Your task to perform on an android device: Open Google Chrome Image 0: 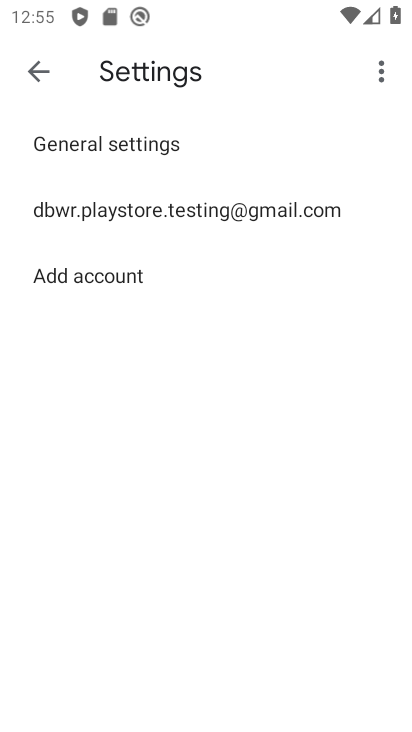
Step 0: press home button
Your task to perform on an android device: Open Google Chrome Image 1: 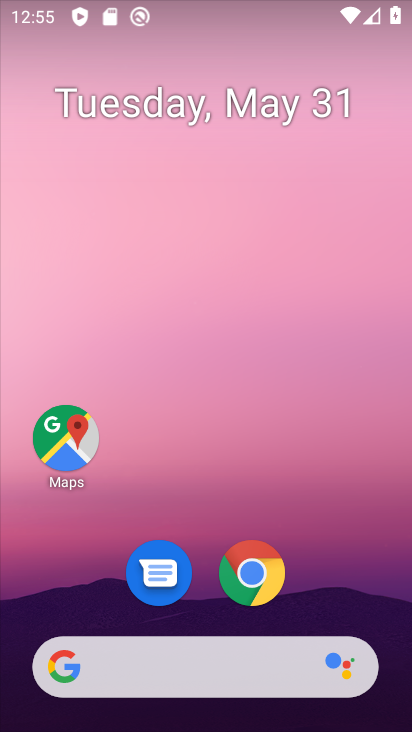
Step 1: drag from (347, 567) to (350, 167)
Your task to perform on an android device: Open Google Chrome Image 2: 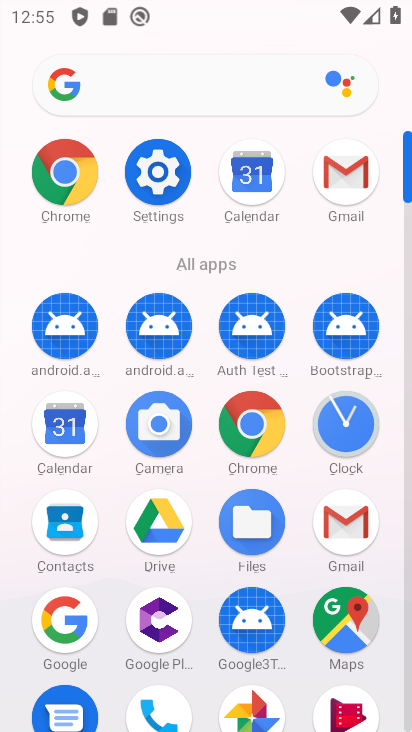
Step 2: click (265, 432)
Your task to perform on an android device: Open Google Chrome Image 3: 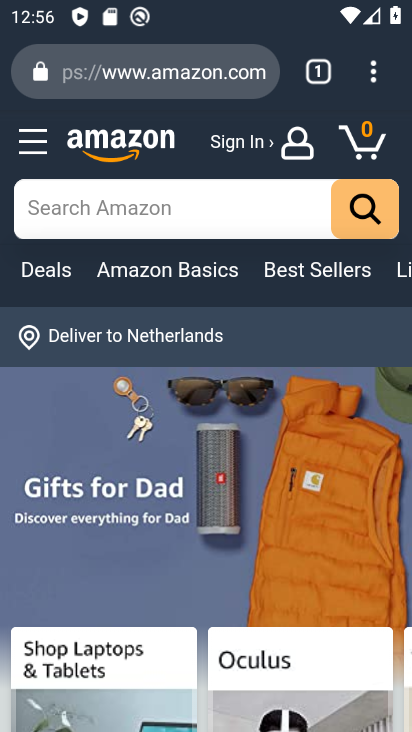
Step 3: task complete